Your task to perform on an android device: What's the weather? Image 0: 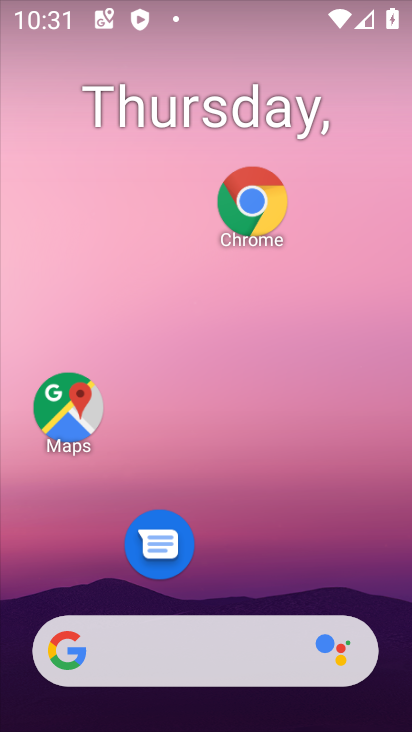
Step 0: drag from (6, 294) to (409, 293)
Your task to perform on an android device: What's the weather? Image 1: 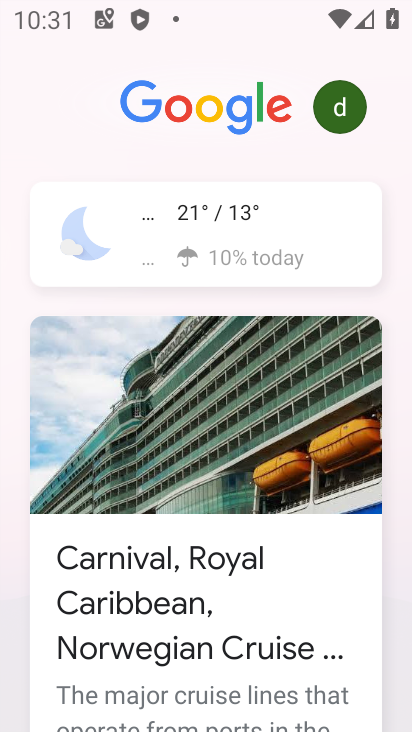
Step 1: click (218, 229)
Your task to perform on an android device: What's the weather? Image 2: 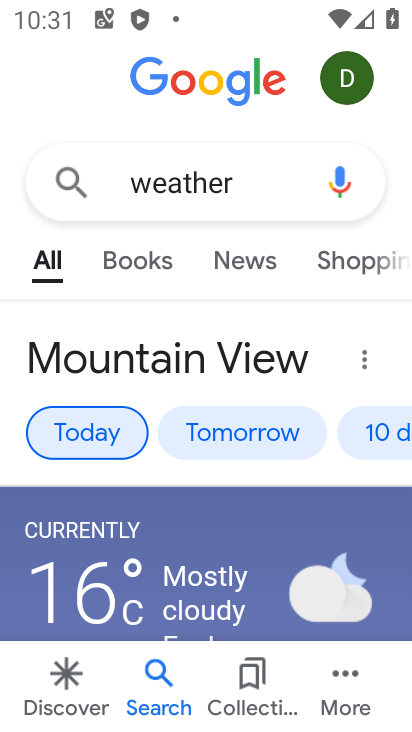
Step 2: task complete